Your task to perform on an android device: Open Google Chrome and open the bookmarks view Image 0: 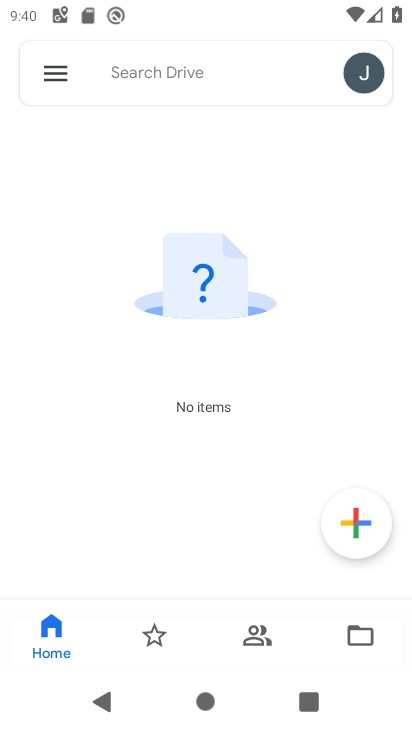
Step 0: press home button
Your task to perform on an android device: Open Google Chrome and open the bookmarks view Image 1: 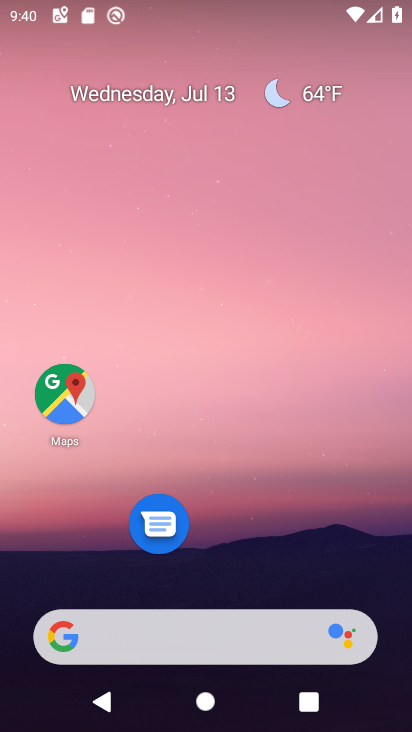
Step 1: drag from (232, 571) to (271, 24)
Your task to perform on an android device: Open Google Chrome and open the bookmarks view Image 2: 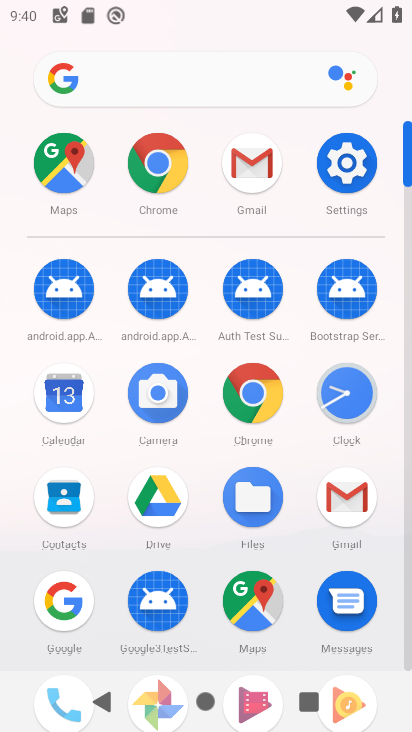
Step 2: click (267, 396)
Your task to perform on an android device: Open Google Chrome and open the bookmarks view Image 3: 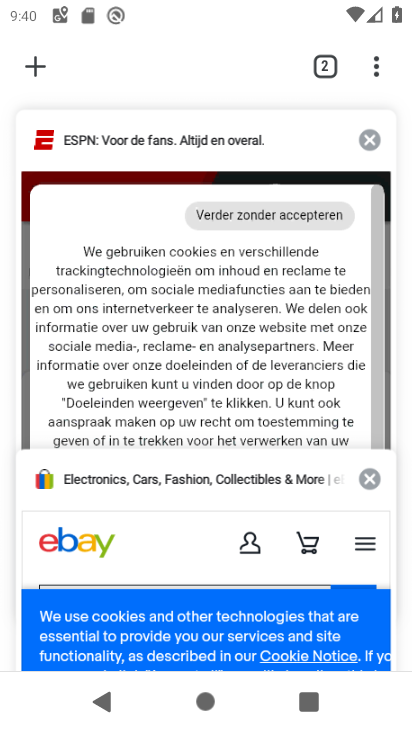
Step 3: click (31, 63)
Your task to perform on an android device: Open Google Chrome and open the bookmarks view Image 4: 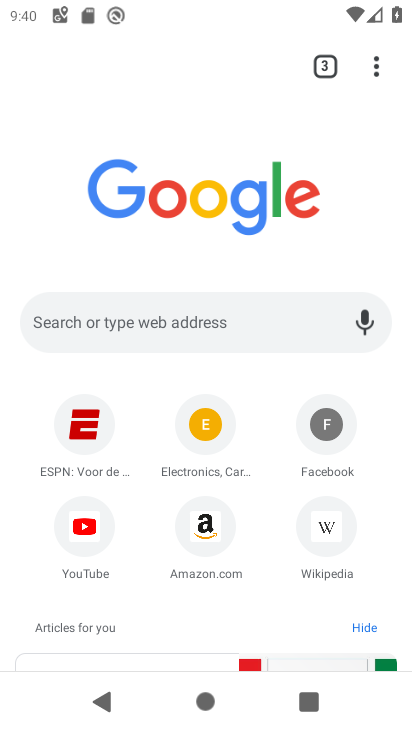
Step 4: task complete